Your task to perform on an android device: check google app version Image 0: 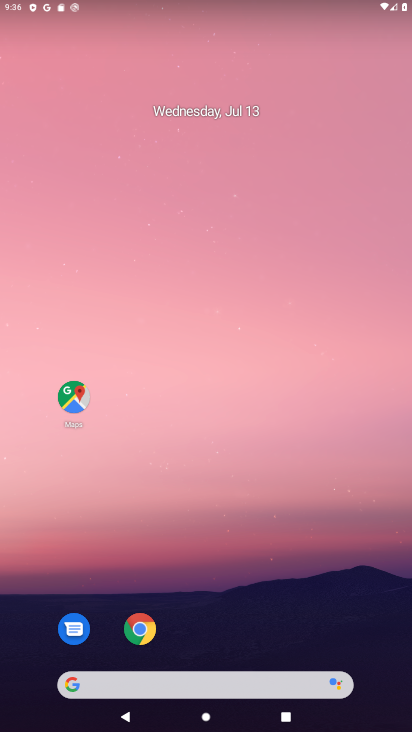
Step 0: drag from (320, 638) to (335, 139)
Your task to perform on an android device: check google app version Image 1: 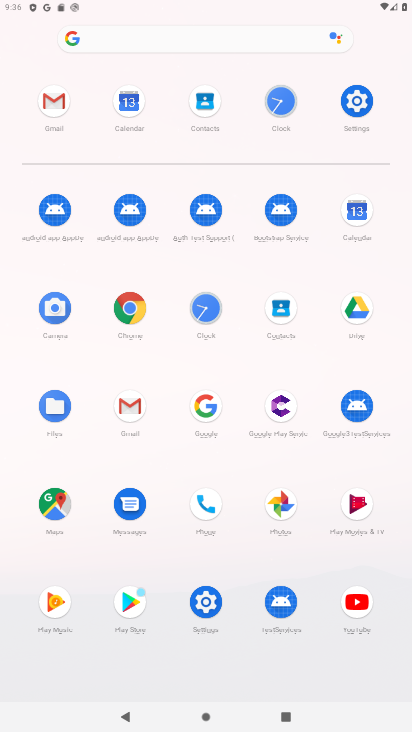
Step 1: click (130, 307)
Your task to perform on an android device: check google app version Image 2: 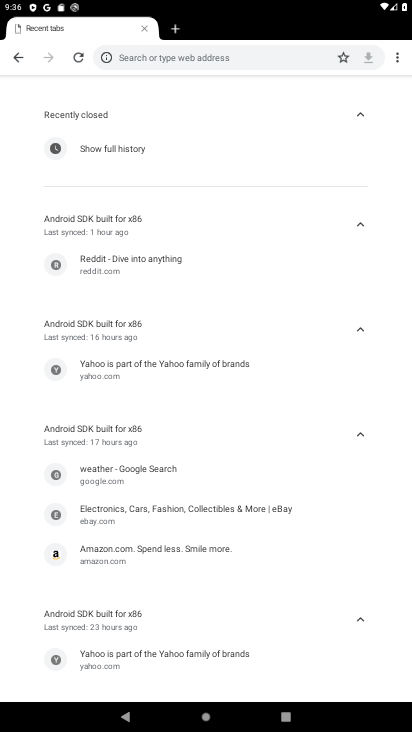
Step 2: task complete